Your task to perform on an android device: When is my next meeting? Image 0: 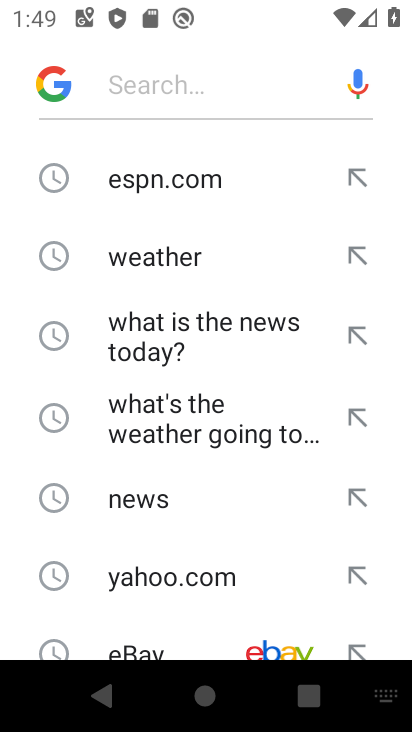
Step 0: press home button
Your task to perform on an android device: When is my next meeting? Image 1: 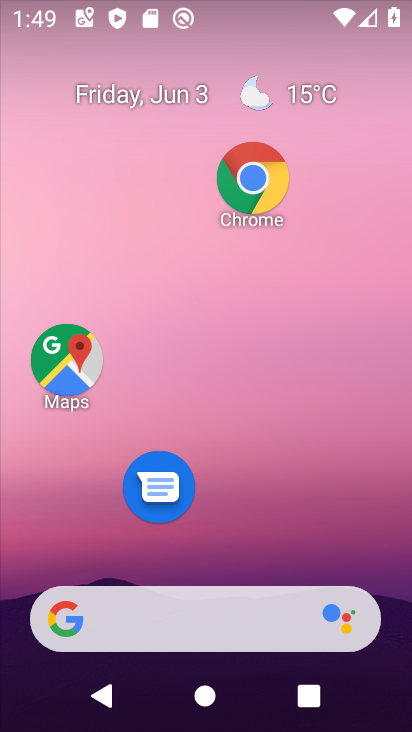
Step 1: drag from (219, 544) to (211, 90)
Your task to perform on an android device: When is my next meeting? Image 2: 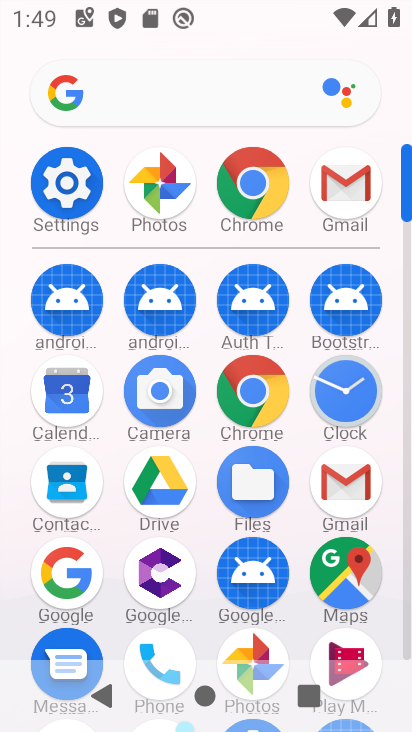
Step 2: click (56, 386)
Your task to perform on an android device: When is my next meeting? Image 3: 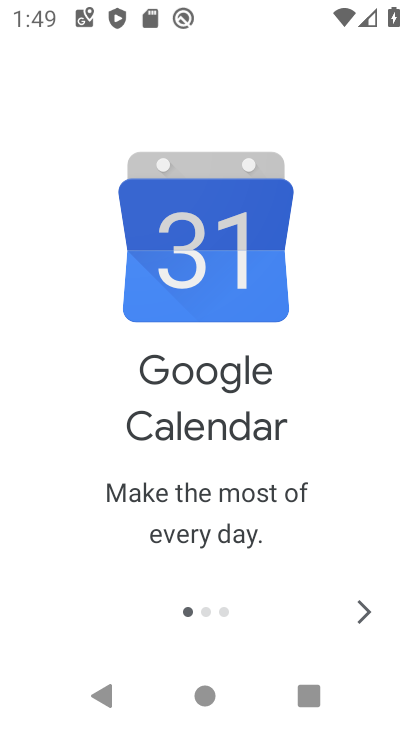
Step 3: click (367, 610)
Your task to perform on an android device: When is my next meeting? Image 4: 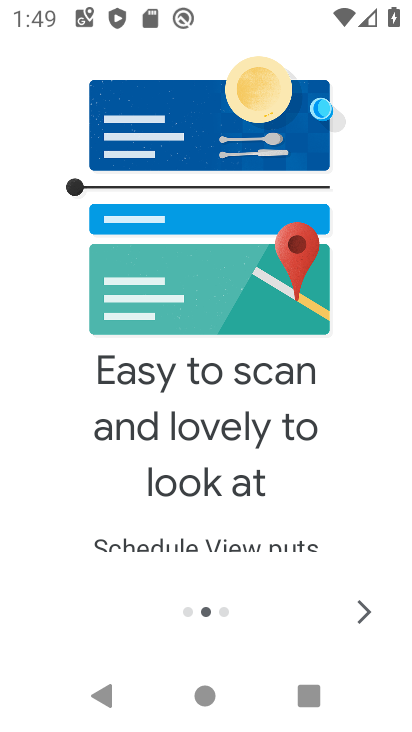
Step 4: click (367, 610)
Your task to perform on an android device: When is my next meeting? Image 5: 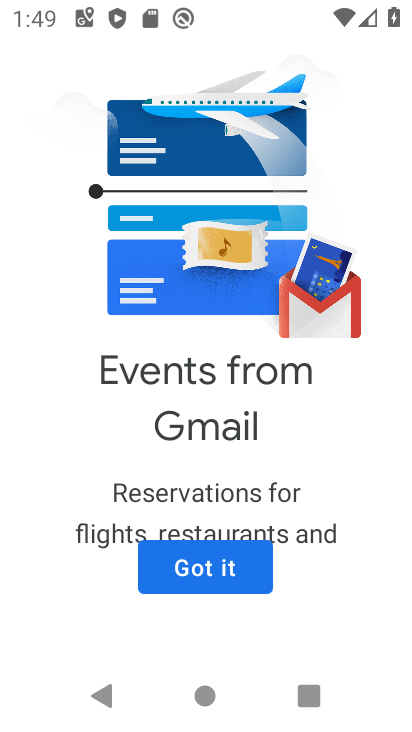
Step 5: click (210, 557)
Your task to perform on an android device: When is my next meeting? Image 6: 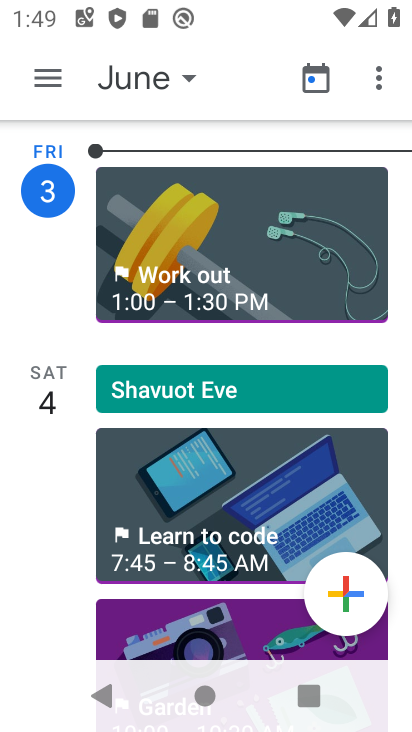
Step 6: task complete